Your task to perform on an android device: Search for sushi restaurants on Maps Image 0: 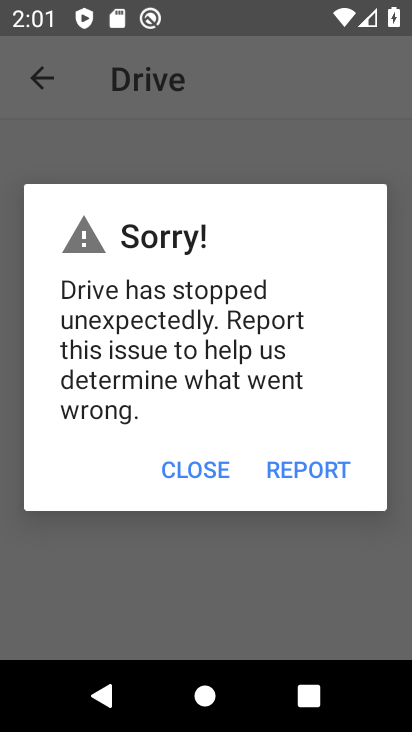
Step 0: press home button
Your task to perform on an android device: Search for sushi restaurants on Maps Image 1: 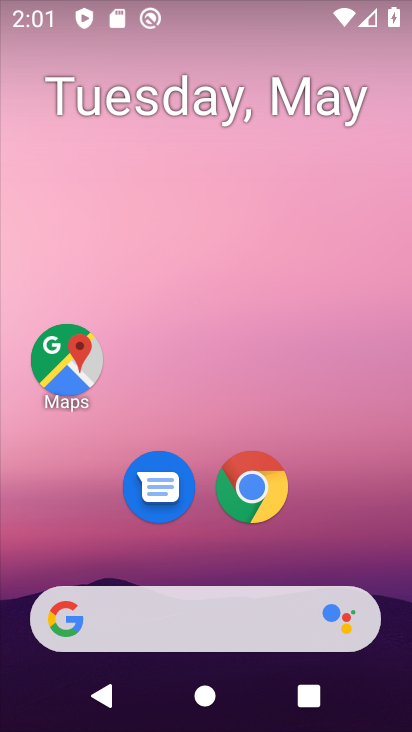
Step 1: click (71, 369)
Your task to perform on an android device: Search for sushi restaurants on Maps Image 2: 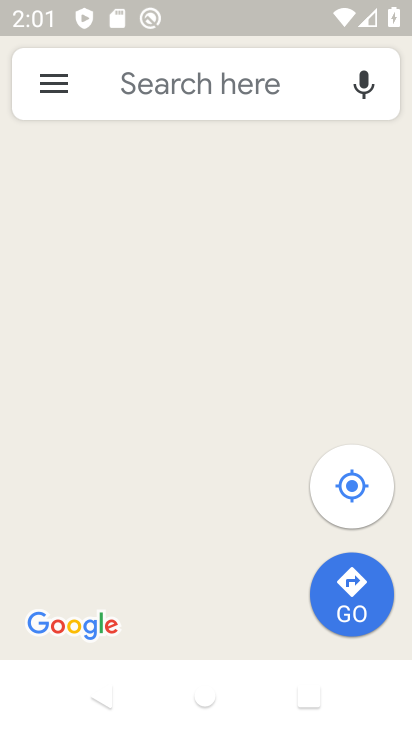
Step 2: click (197, 91)
Your task to perform on an android device: Search for sushi restaurants on Maps Image 3: 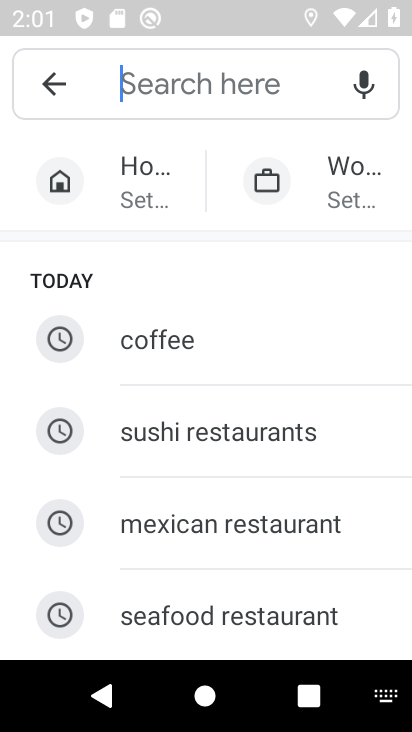
Step 3: type "s"
Your task to perform on an android device: Search for sushi restaurants on Maps Image 4: 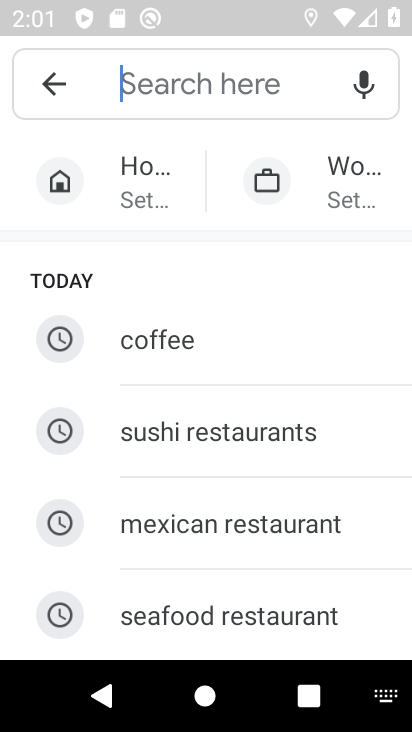
Step 4: click (226, 447)
Your task to perform on an android device: Search for sushi restaurants on Maps Image 5: 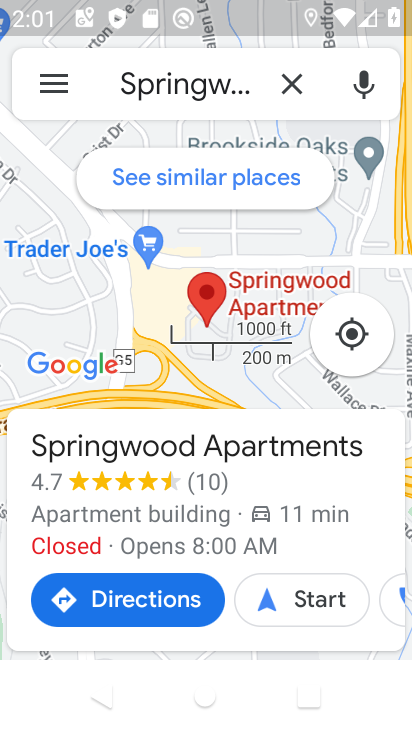
Step 5: task complete